Your task to perform on an android device: Show me the alarms in the clock app Image 0: 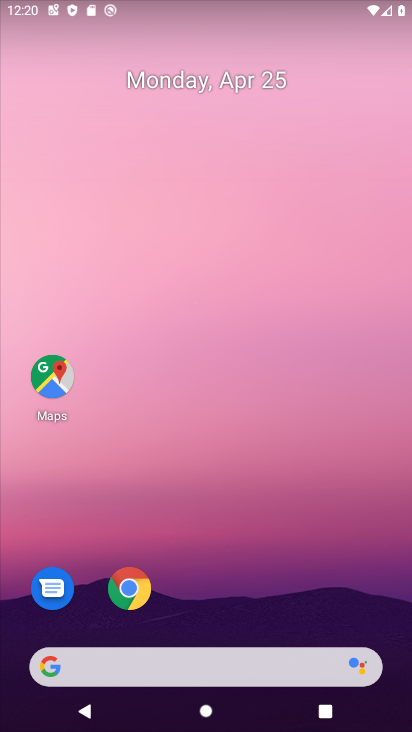
Step 0: drag from (200, 576) to (294, 128)
Your task to perform on an android device: Show me the alarms in the clock app Image 1: 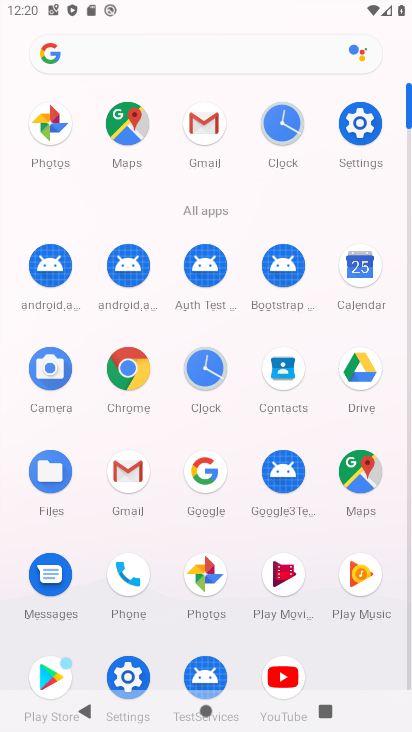
Step 1: click (289, 120)
Your task to perform on an android device: Show me the alarms in the clock app Image 2: 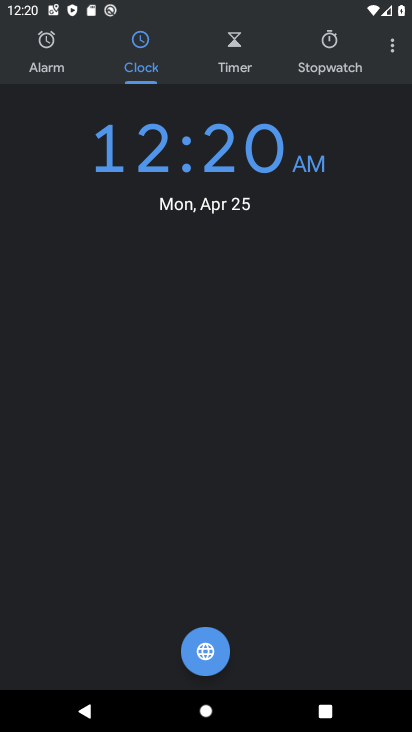
Step 2: click (52, 51)
Your task to perform on an android device: Show me the alarms in the clock app Image 3: 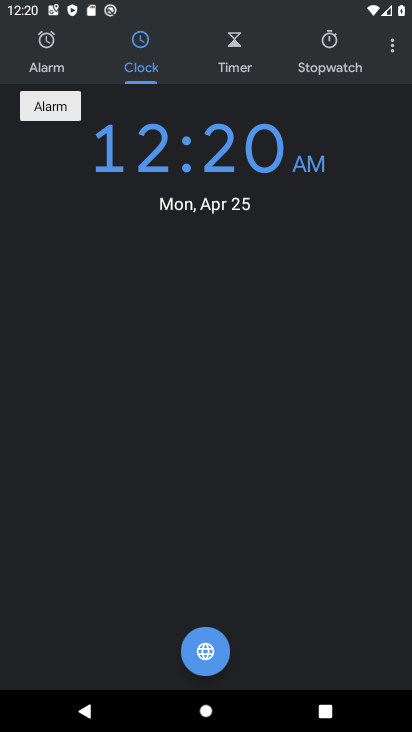
Step 3: click (52, 51)
Your task to perform on an android device: Show me the alarms in the clock app Image 4: 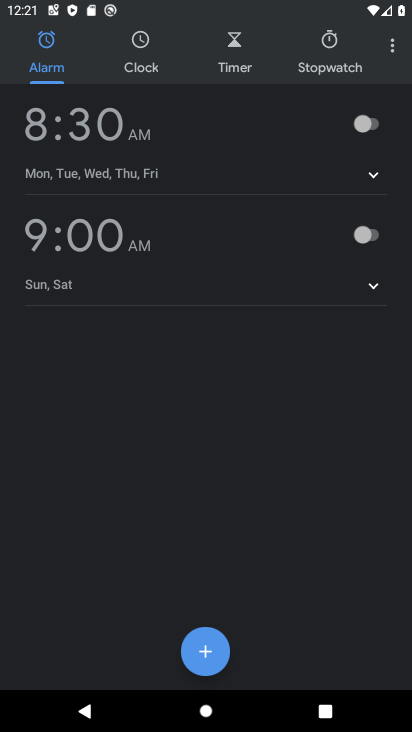
Step 4: task complete